Your task to perform on an android device: uninstall "Calculator" Image 0: 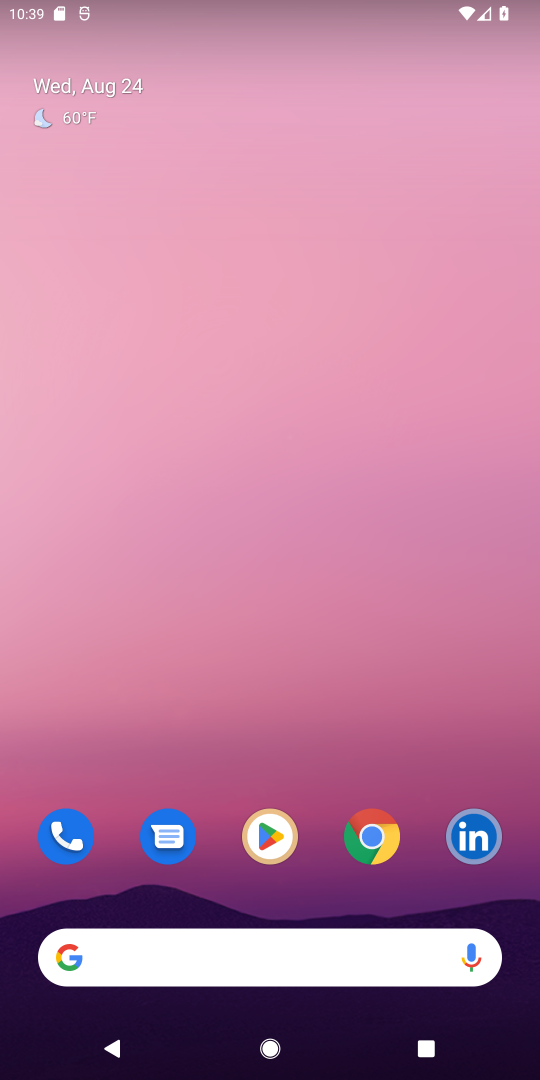
Step 0: click (287, 832)
Your task to perform on an android device: uninstall "Calculator" Image 1: 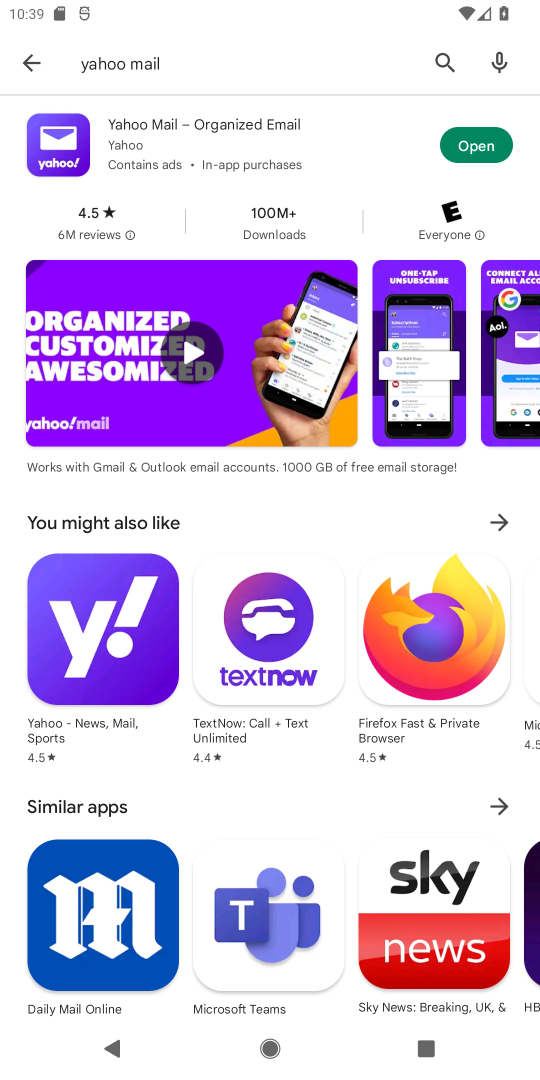
Step 1: click (435, 62)
Your task to perform on an android device: uninstall "Calculator" Image 2: 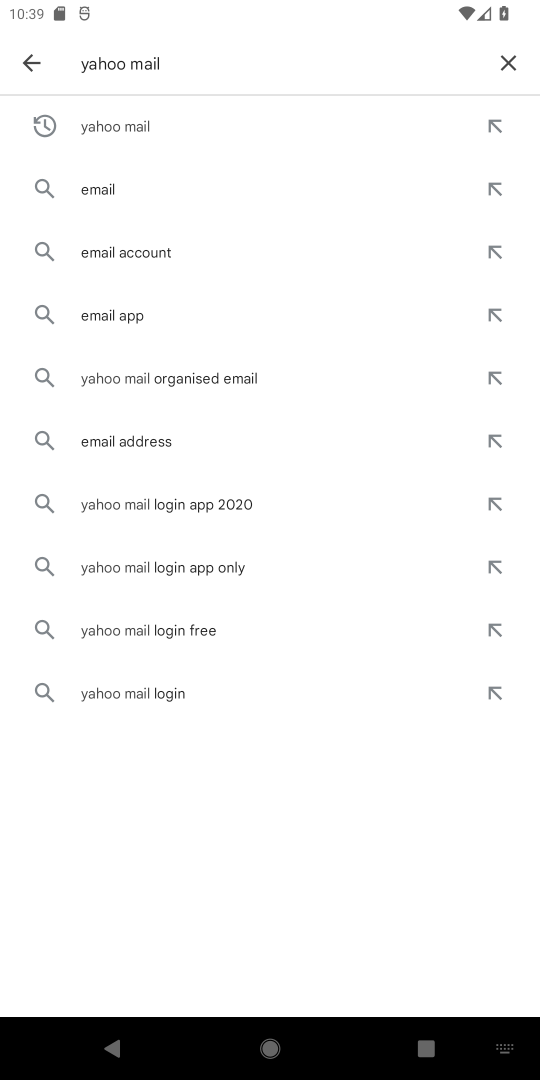
Step 2: click (496, 63)
Your task to perform on an android device: uninstall "Calculator" Image 3: 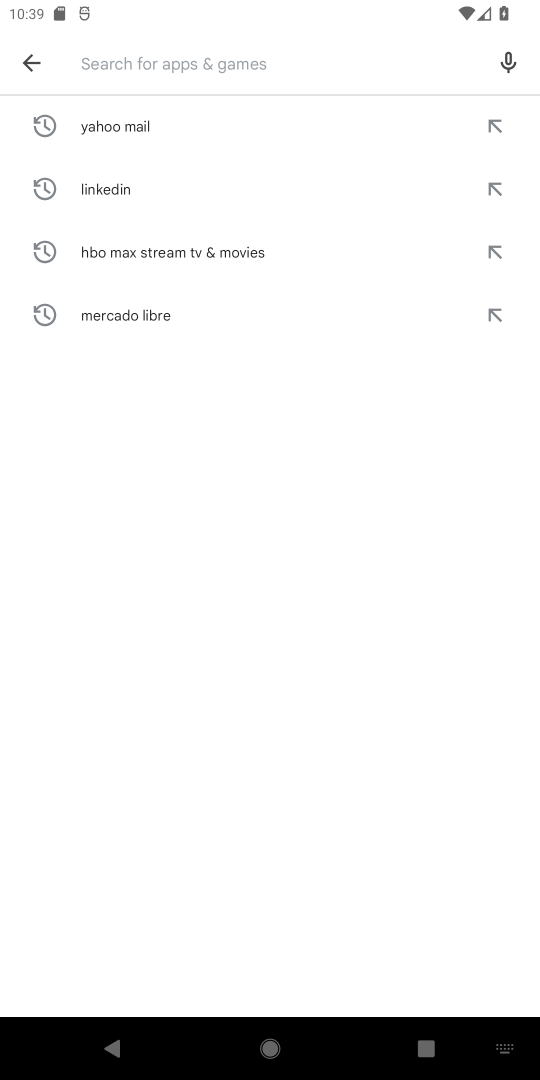
Step 3: type "Calculator"
Your task to perform on an android device: uninstall "Calculator" Image 4: 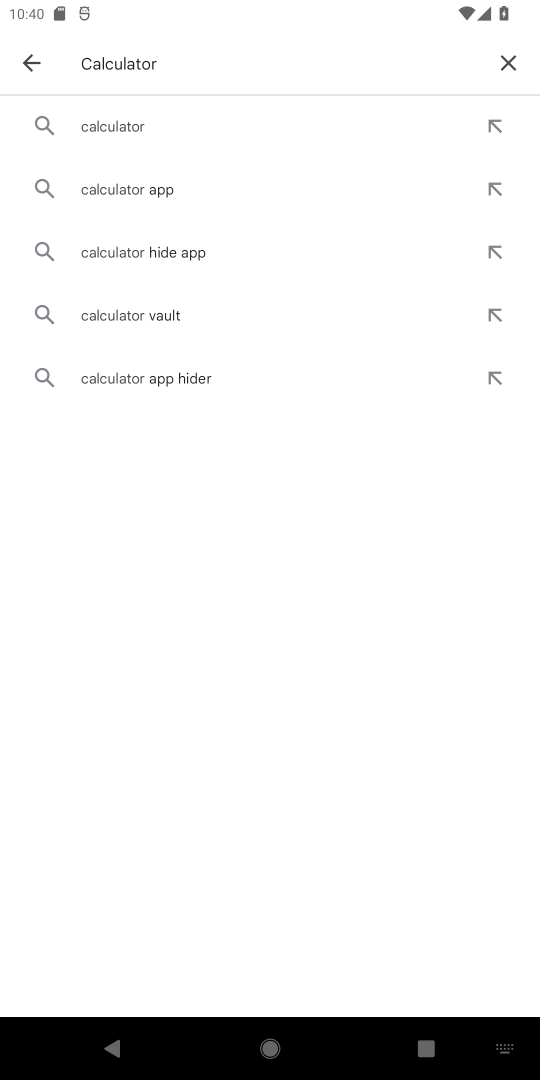
Step 4: click (195, 133)
Your task to perform on an android device: uninstall "Calculator" Image 5: 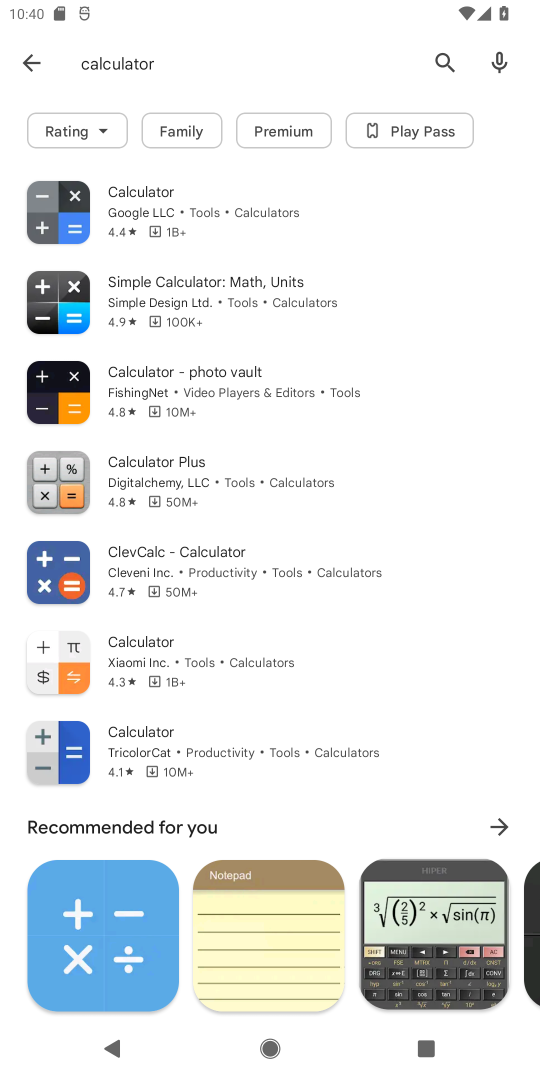
Step 5: click (220, 210)
Your task to perform on an android device: uninstall "Calculator" Image 6: 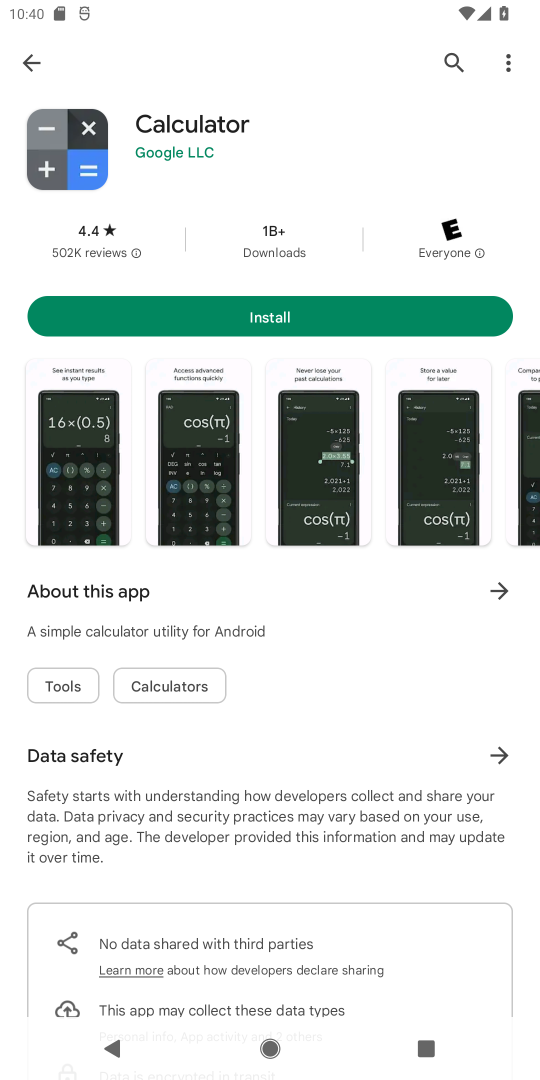
Step 6: task complete